Your task to perform on an android device: Open network settings Image 0: 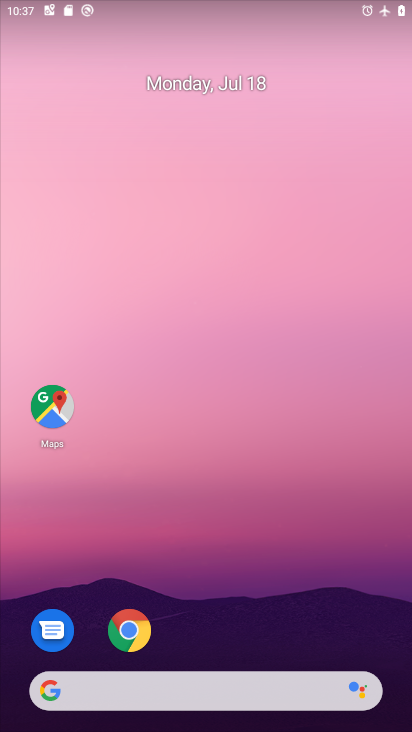
Step 0: drag from (213, 641) to (194, 165)
Your task to perform on an android device: Open network settings Image 1: 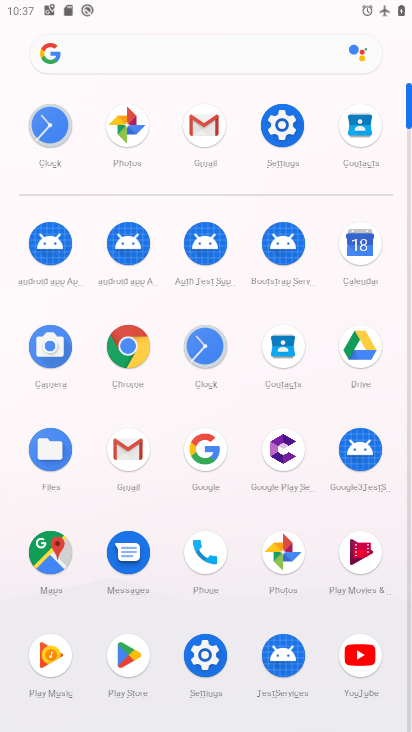
Step 1: click (283, 120)
Your task to perform on an android device: Open network settings Image 2: 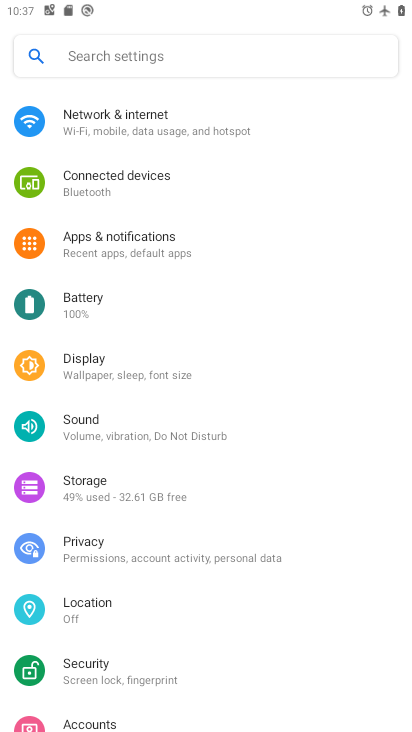
Step 2: click (208, 145)
Your task to perform on an android device: Open network settings Image 3: 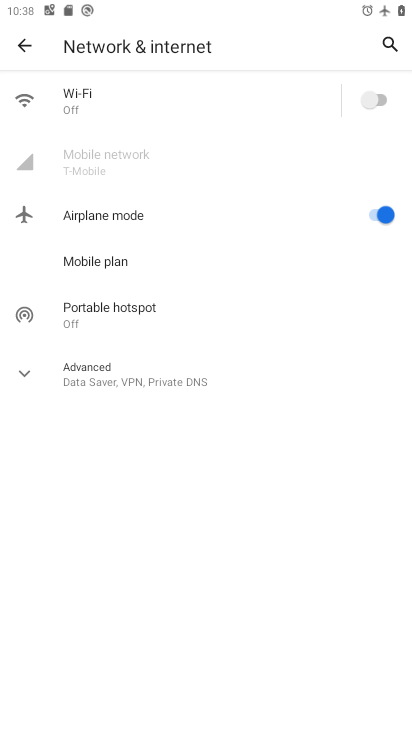
Step 3: task complete